Your task to perform on an android device: delete browsing data in the chrome app Image 0: 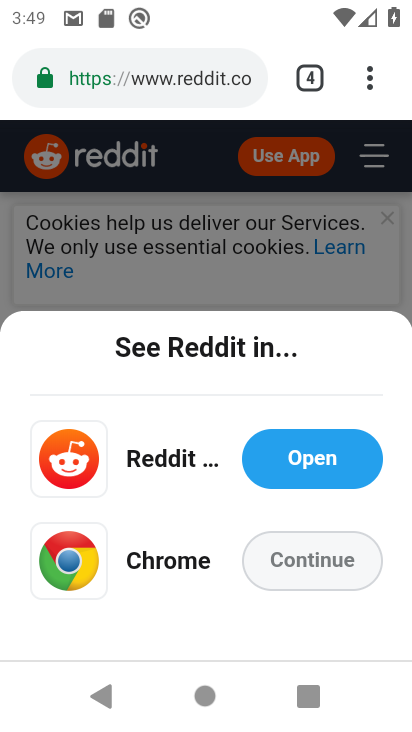
Step 0: press home button
Your task to perform on an android device: delete browsing data in the chrome app Image 1: 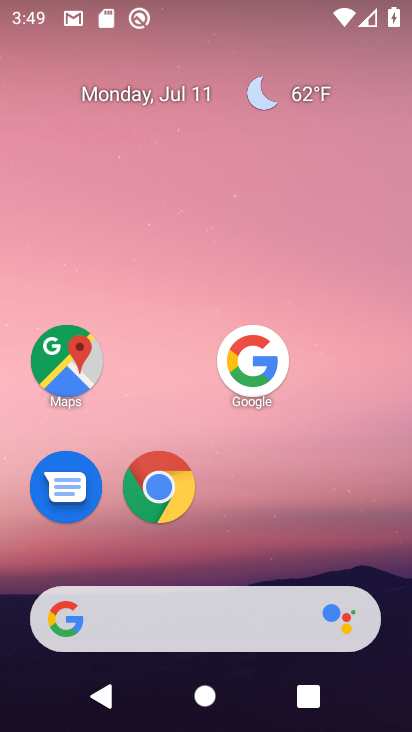
Step 1: click (162, 507)
Your task to perform on an android device: delete browsing data in the chrome app Image 2: 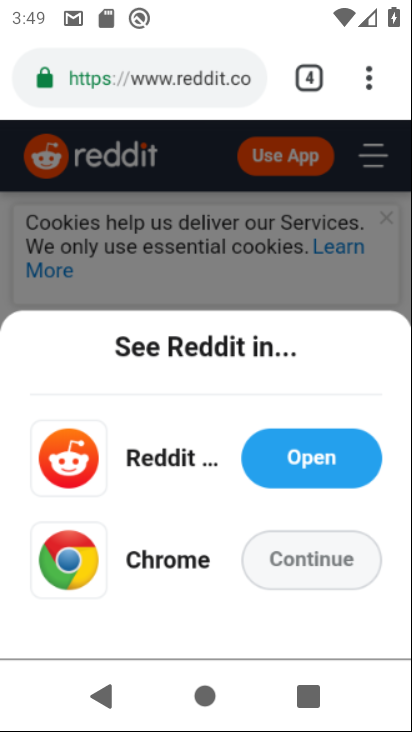
Step 2: click (156, 498)
Your task to perform on an android device: delete browsing data in the chrome app Image 3: 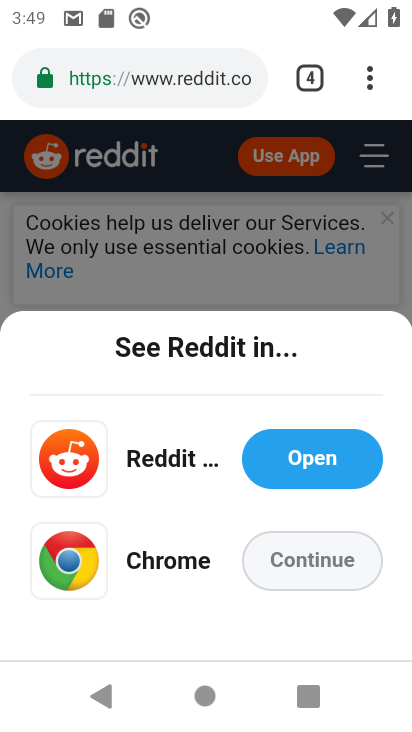
Step 3: drag from (367, 88) to (157, 551)
Your task to perform on an android device: delete browsing data in the chrome app Image 4: 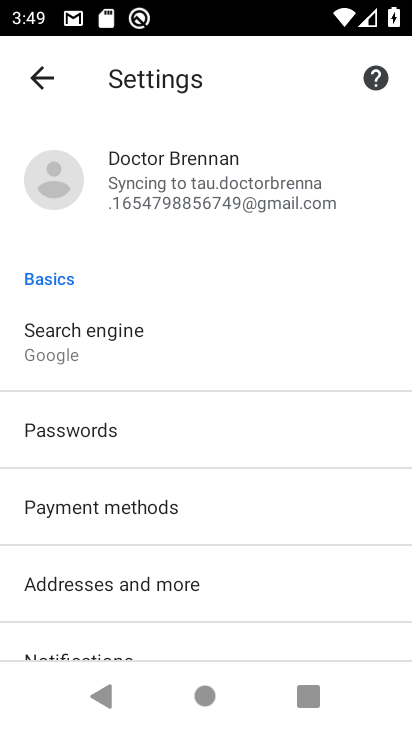
Step 4: drag from (196, 627) to (246, 285)
Your task to perform on an android device: delete browsing data in the chrome app Image 5: 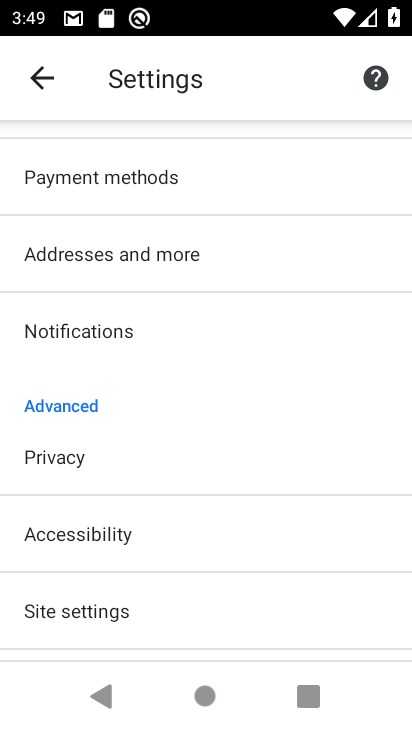
Step 5: click (63, 457)
Your task to perform on an android device: delete browsing data in the chrome app Image 6: 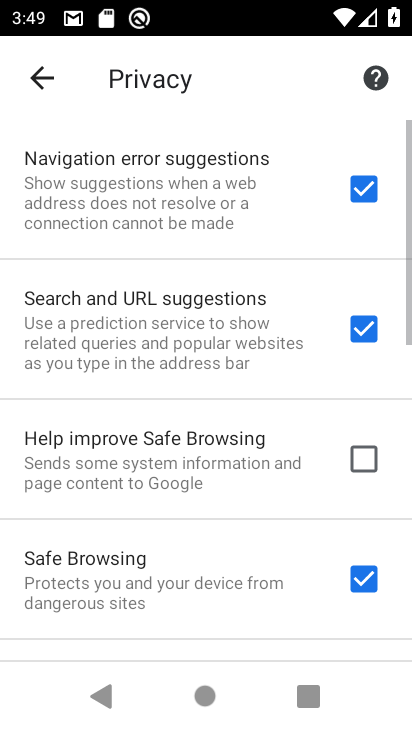
Step 6: drag from (194, 613) to (358, 28)
Your task to perform on an android device: delete browsing data in the chrome app Image 7: 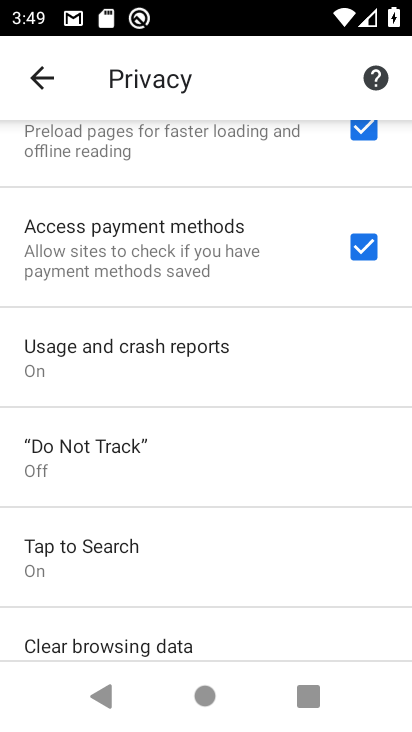
Step 7: drag from (198, 556) to (409, 11)
Your task to perform on an android device: delete browsing data in the chrome app Image 8: 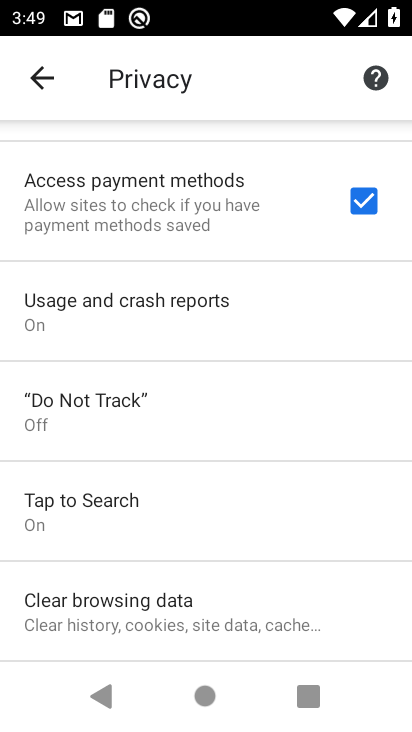
Step 8: click (190, 625)
Your task to perform on an android device: delete browsing data in the chrome app Image 9: 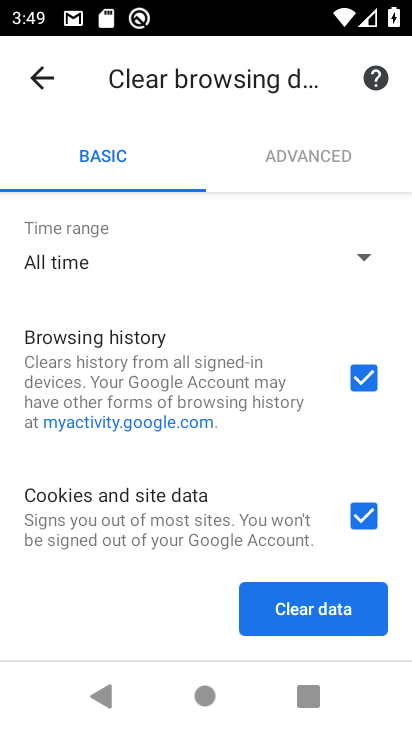
Step 9: drag from (273, 541) to (405, 118)
Your task to perform on an android device: delete browsing data in the chrome app Image 10: 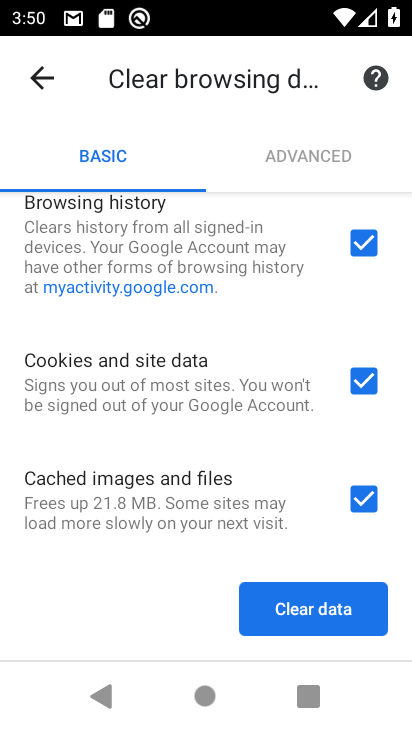
Step 10: click (288, 605)
Your task to perform on an android device: delete browsing data in the chrome app Image 11: 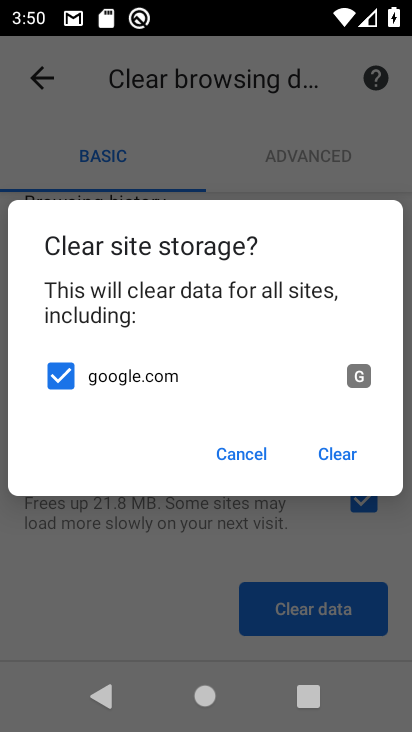
Step 11: click (333, 453)
Your task to perform on an android device: delete browsing data in the chrome app Image 12: 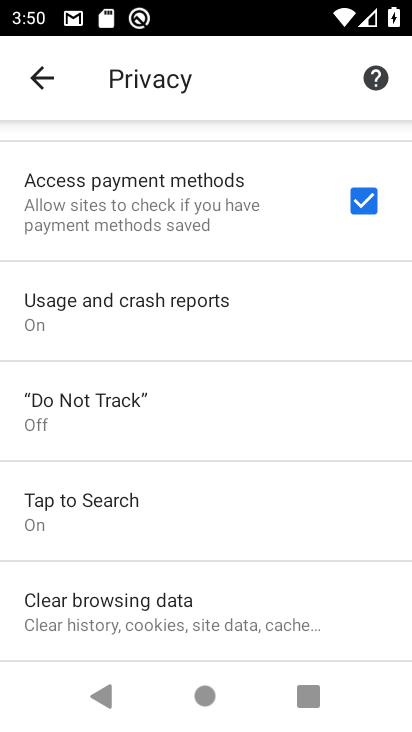
Step 12: task complete